Your task to perform on an android device: manage bookmarks in the chrome app Image 0: 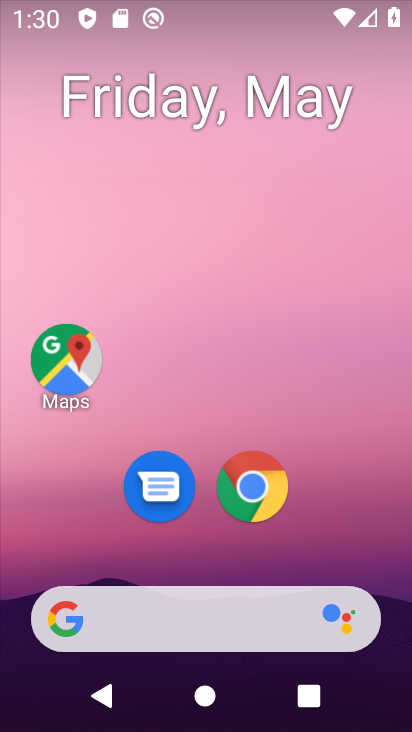
Step 0: drag from (391, 629) to (236, 49)
Your task to perform on an android device: manage bookmarks in the chrome app Image 1: 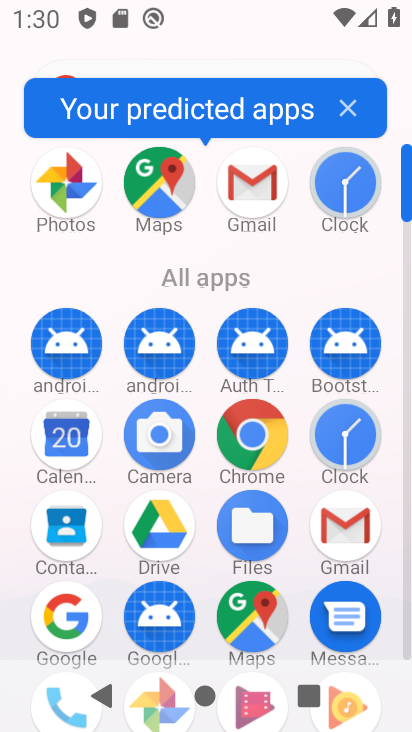
Step 1: click (265, 435)
Your task to perform on an android device: manage bookmarks in the chrome app Image 2: 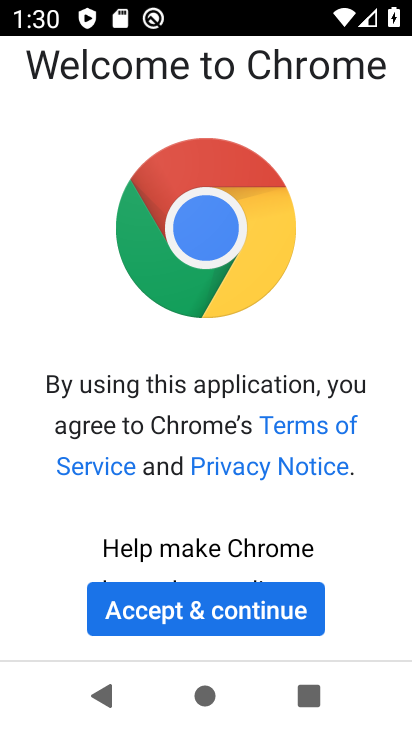
Step 2: click (235, 606)
Your task to perform on an android device: manage bookmarks in the chrome app Image 3: 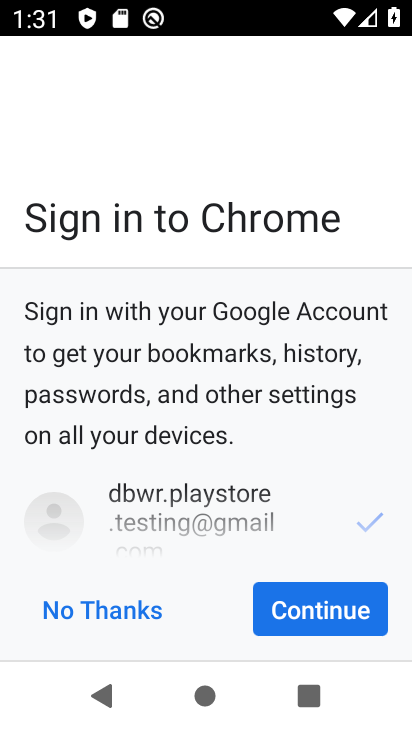
Step 3: click (303, 614)
Your task to perform on an android device: manage bookmarks in the chrome app Image 4: 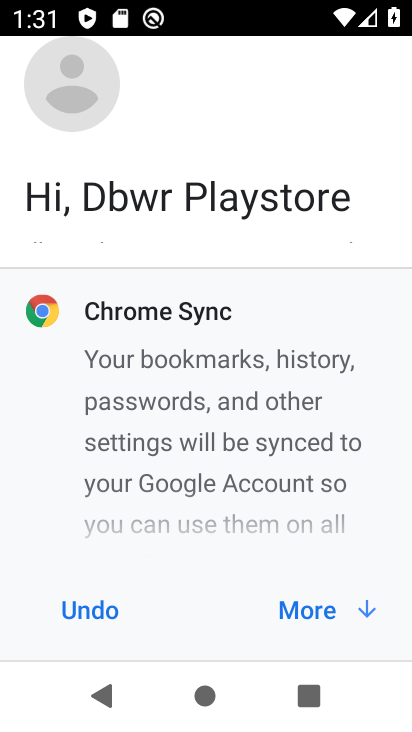
Step 4: click (303, 614)
Your task to perform on an android device: manage bookmarks in the chrome app Image 5: 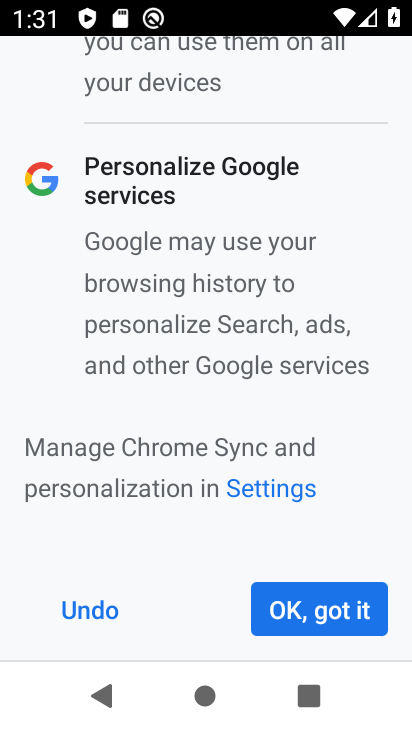
Step 5: click (303, 614)
Your task to perform on an android device: manage bookmarks in the chrome app Image 6: 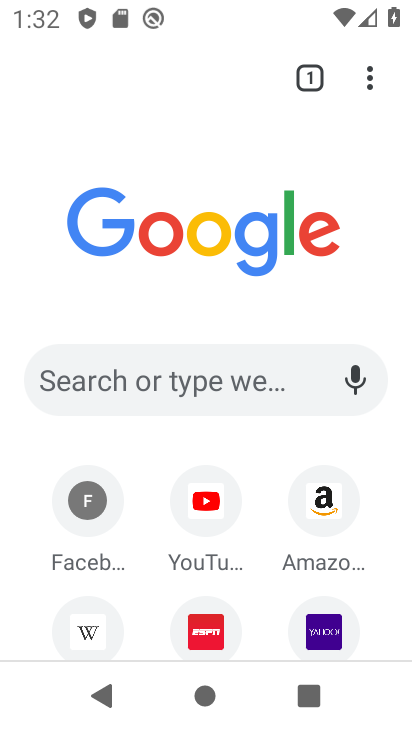
Step 6: task complete